Your task to perform on an android device: Search for 5 star sushi restaurants on Maps Image 0: 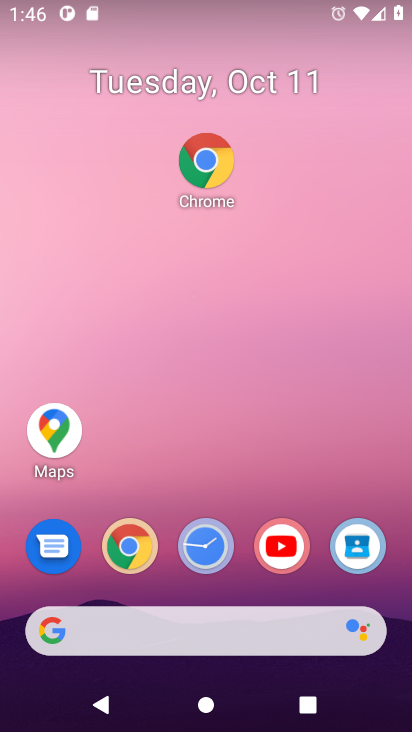
Step 0: click (209, 164)
Your task to perform on an android device: Search for 5 star sushi restaurants on Maps Image 1: 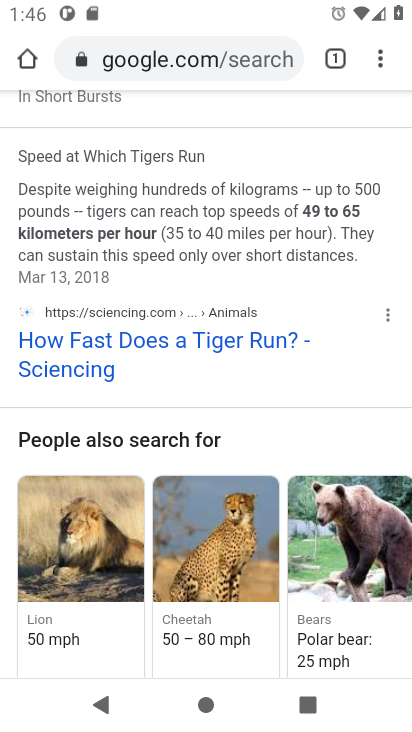
Step 1: click (214, 59)
Your task to perform on an android device: Search for 5 star sushi restaurants on Maps Image 2: 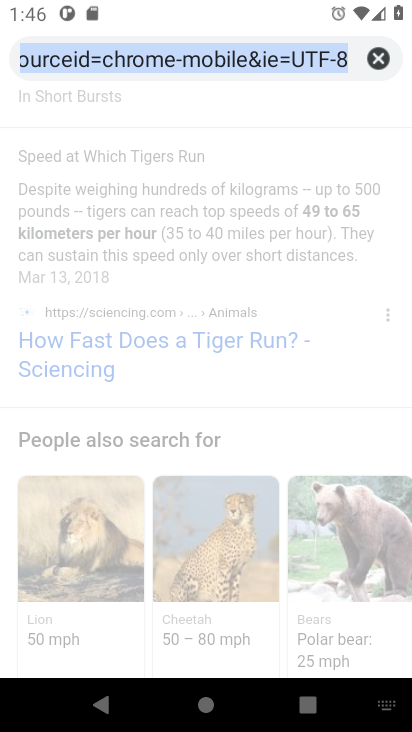
Step 2: press home button
Your task to perform on an android device: Search for 5 star sushi restaurants on Maps Image 3: 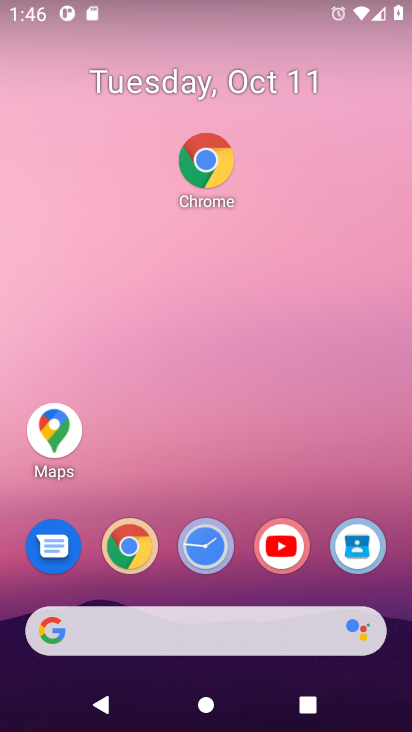
Step 3: click (50, 425)
Your task to perform on an android device: Search for 5 star sushi restaurants on Maps Image 4: 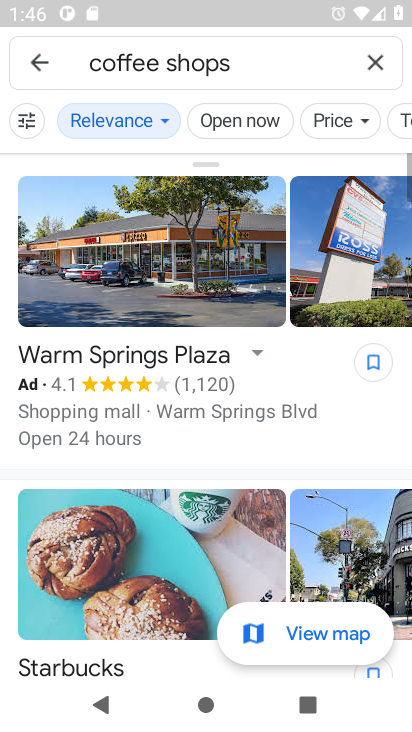
Step 4: click (373, 61)
Your task to perform on an android device: Search for 5 star sushi restaurants on Maps Image 5: 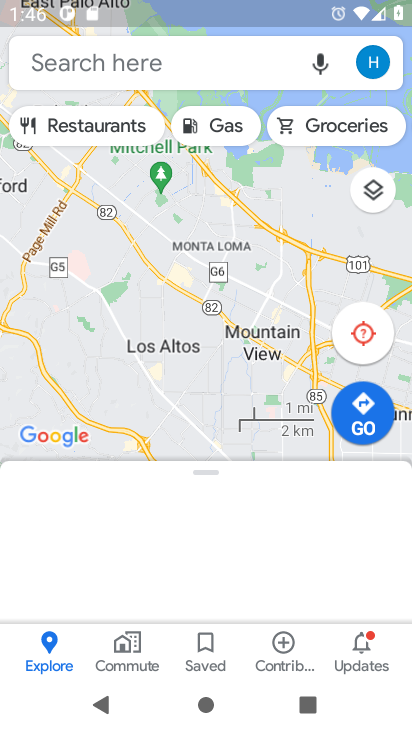
Step 5: click (219, 68)
Your task to perform on an android device: Search for 5 star sushi restaurants on Maps Image 6: 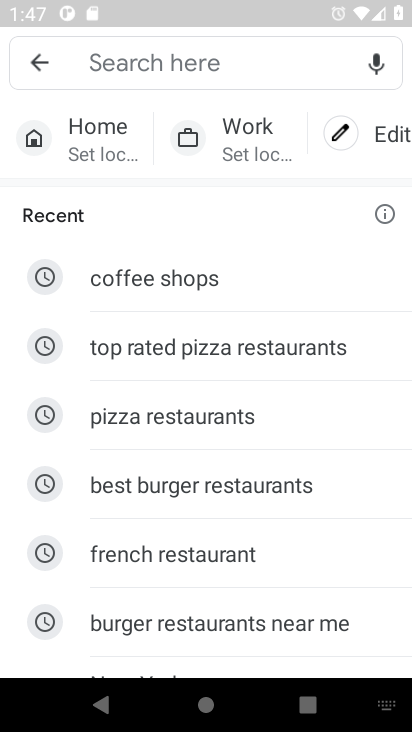
Step 6: type "5 star sushi restaurants"
Your task to perform on an android device: Search for 5 star sushi restaurants on Maps Image 7: 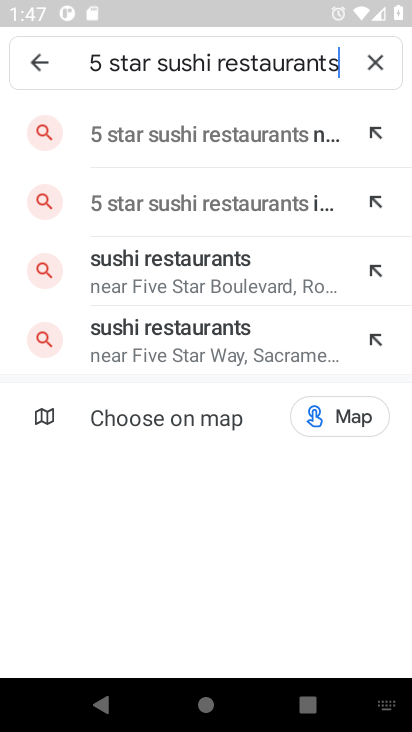
Step 7: type ""
Your task to perform on an android device: Search for 5 star sushi restaurants on Maps Image 8: 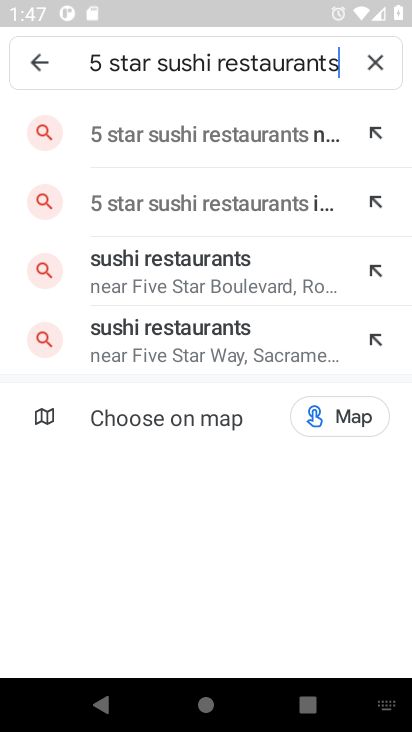
Step 8: press enter
Your task to perform on an android device: Search for 5 star sushi restaurants on Maps Image 9: 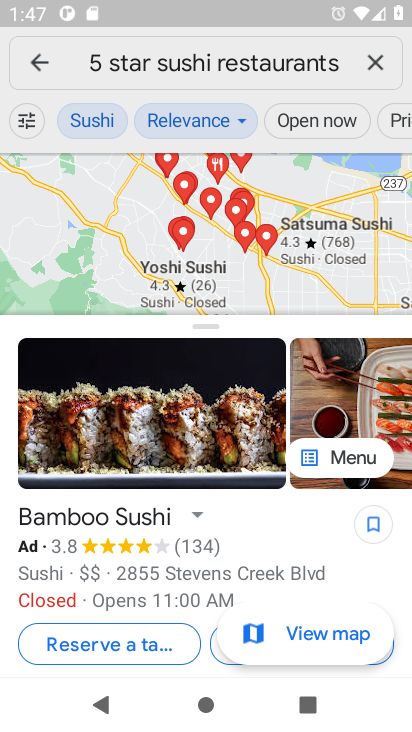
Step 9: task complete